Your task to perform on an android device: turn off improve location accuracy Image 0: 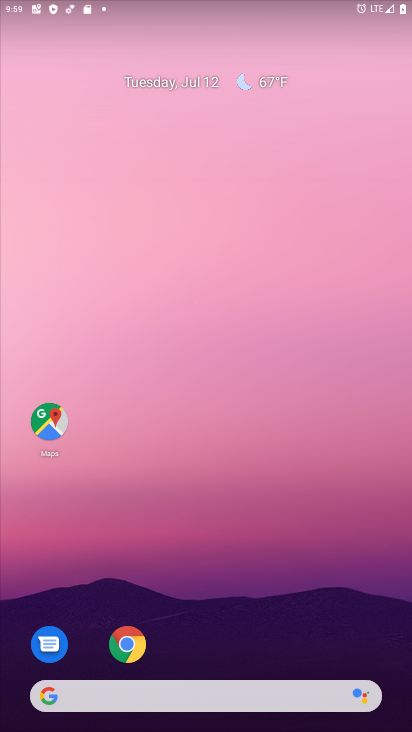
Step 0: drag from (181, 631) to (220, 178)
Your task to perform on an android device: turn off improve location accuracy Image 1: 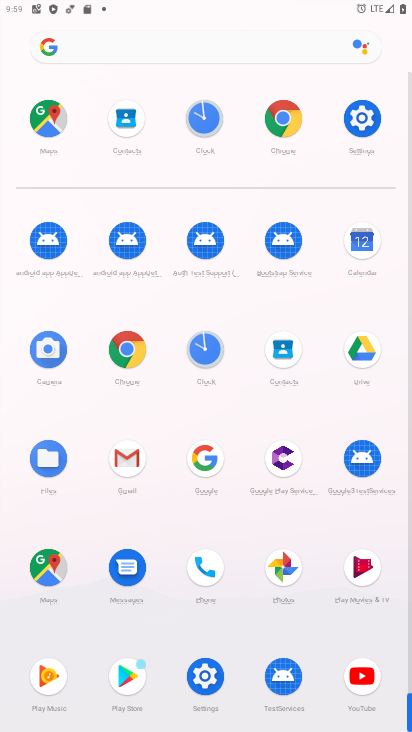
Step 1: click (202, 675)
Your task to perform on an android device: turn off improve location accuracy Image 2: 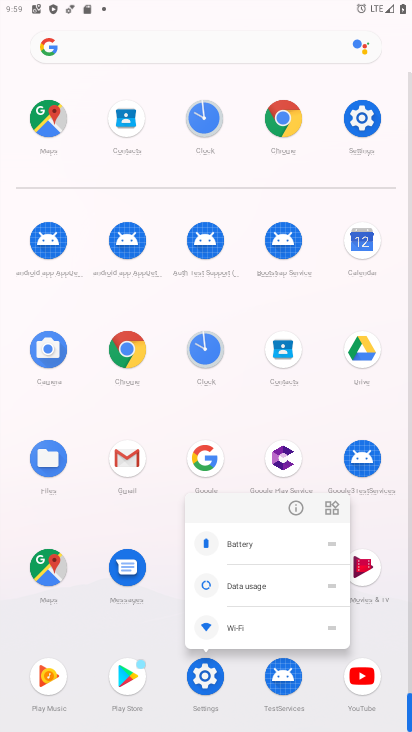
Step 2: click (295, 506)
Your task to perform on an android device: turn off improve location accuracy Image 3: 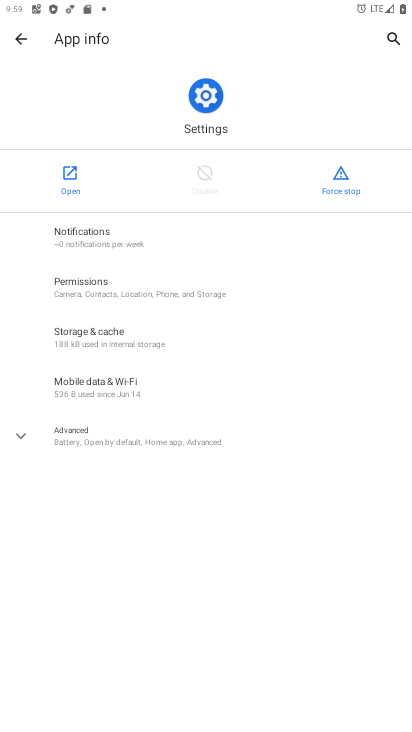
Step 3: click (67, 185)
Your task to perform on an android device: turn off improve location accuracy Image 4: 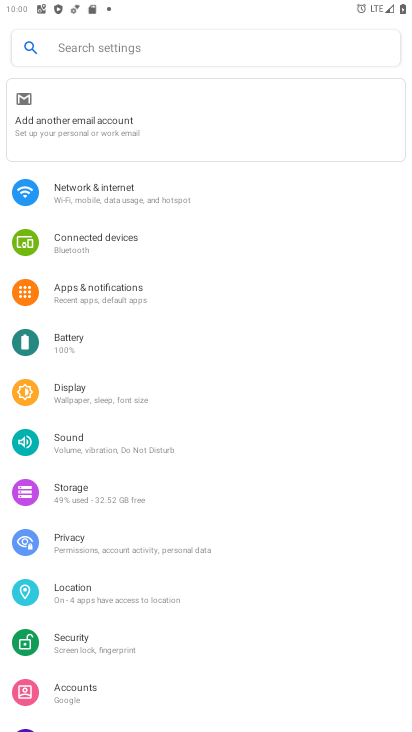
Step 4: click (112, 600)
Your task to perform on an android device: turn off improve location accuracy Image 5: 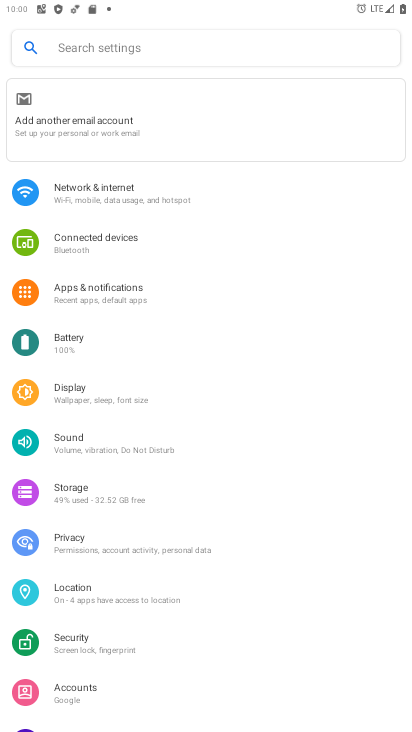
Step 5: click (112, 600)
Your task to perform on an android device: turn off improve location accuracy Image 6: 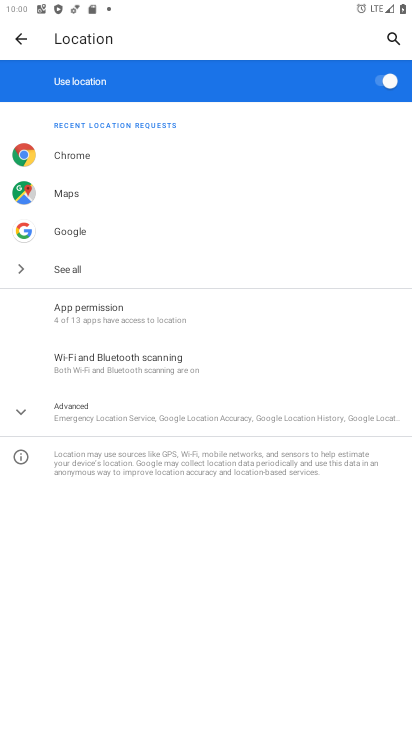
Step 6: click (122, 405)
Your task to perform on an android device: turn off improve location accuracy Image 7: 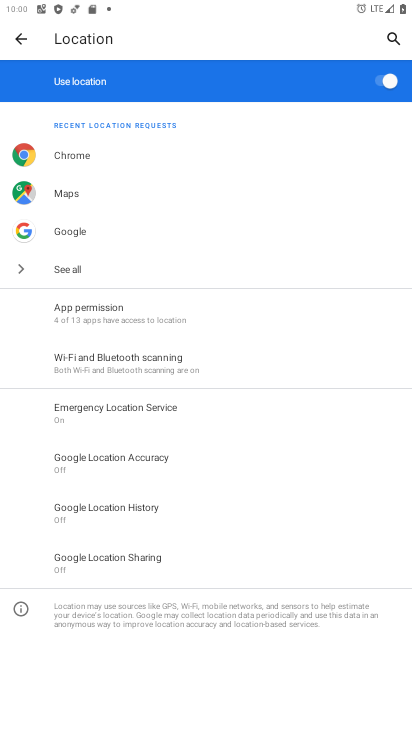
Step 7: click (165, 462)
Your task to perform on an android device: turn off improve location accuracy Image 8: 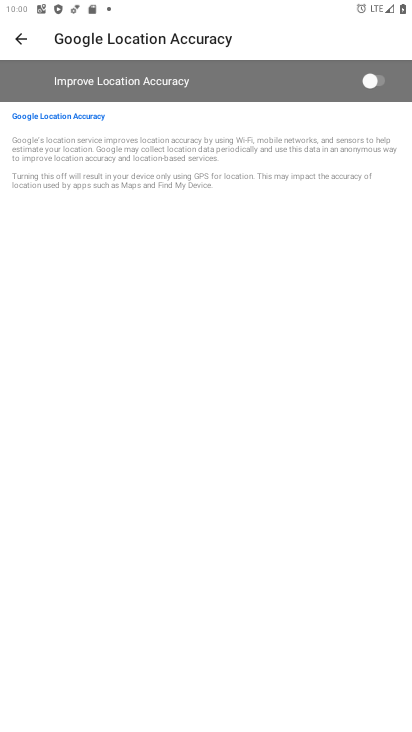
Step 8: task complete